Your task to perform on an android device: Open the calendar and show me this week's events? Image 0: 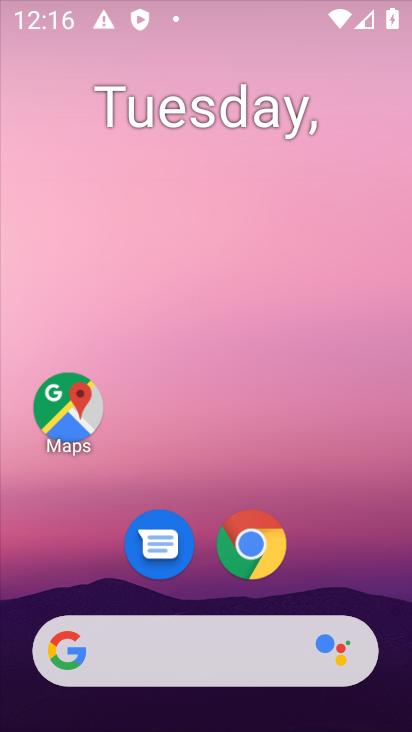
Step 0: drag from (369, 522) to (270, 52)
Your task to perform on an android device: Open the calendar and show me this week's events? Image 1: 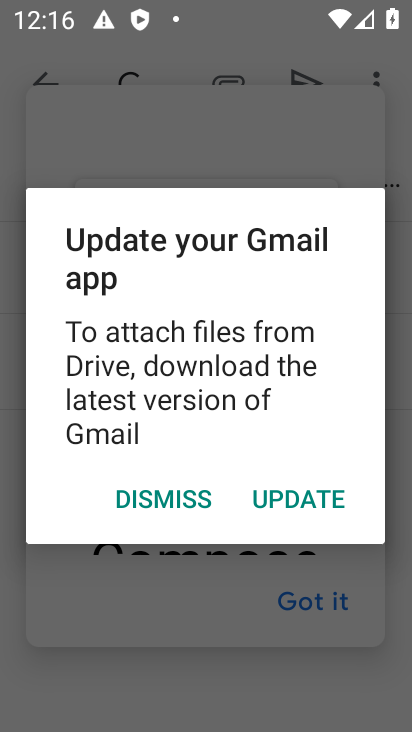
Step 1: press home button
Your task to perform on an android device: Open the calendar and show me this week's events? Image 2: 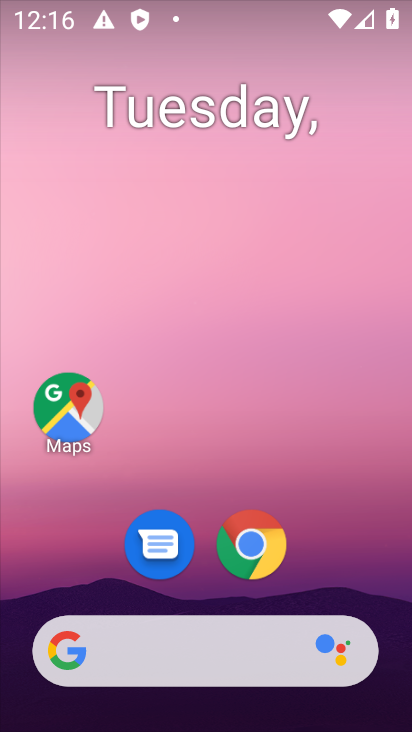
Step 2: drag from (321, 551) to (277, 43)
Your task to perform on an android device: Open the calendar and show me this week's events? Image 3: 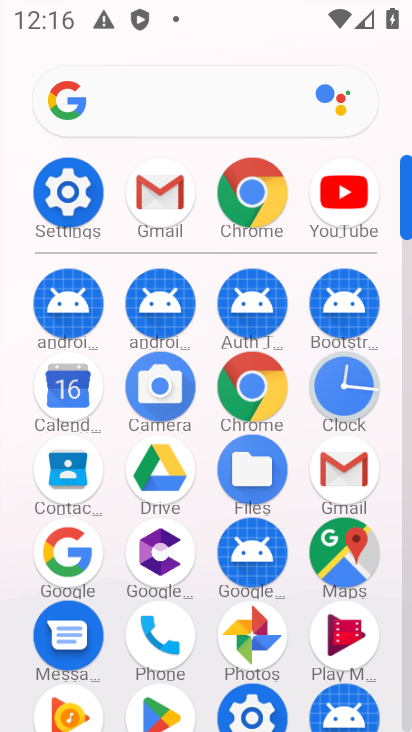
Step 3: click (64, 394)
Your task to perform on an android device: Open the calendar and show me this week's events? Image 4: 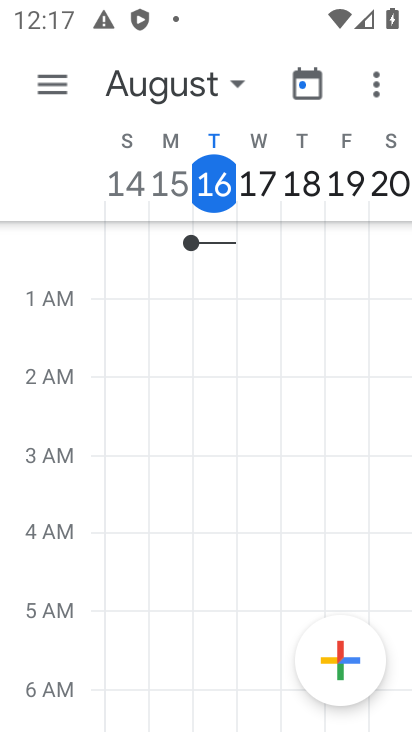
Step 4: task complete